Your task to perform on an android device: turn off notifications in google photos Image 0: 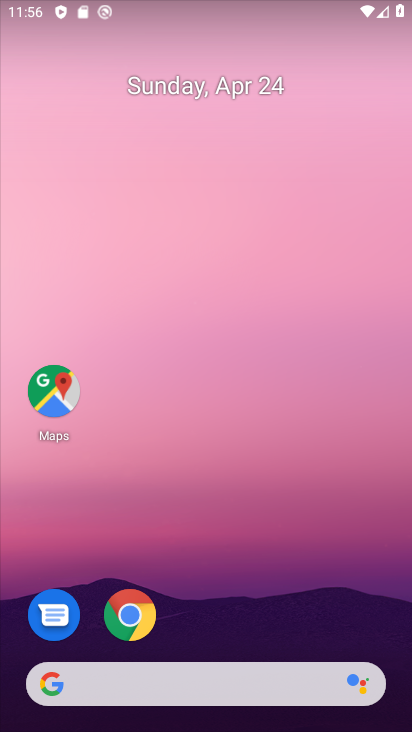
Step 0: drag from (368, 614) to (369, 126)
Your task to perform on an android device: turn off notifications in google photos Image 1: 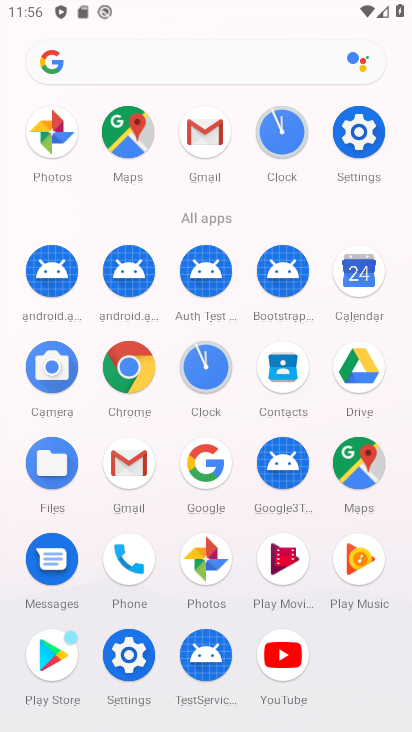
Step 1: click (205, 562)
Your task to perform on an android device: turn off notifications in google photos Image 2: 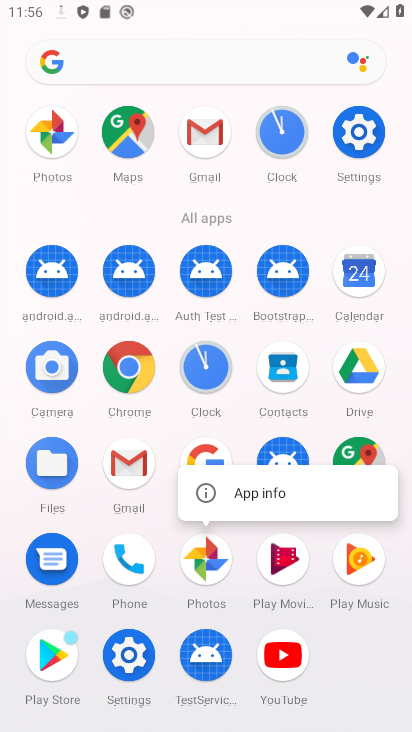
Step 2: click (210, 560)
Your task to perform on an android device: turn off notifications in google photos Image 3: 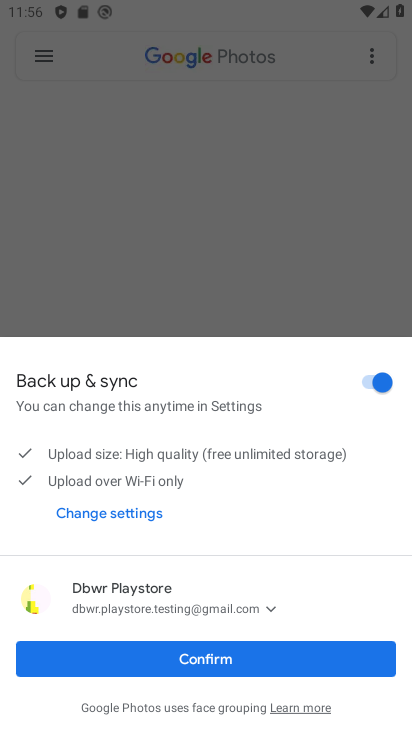
Step 3: click (304, 658)
Your task to perform on an android device: turn off notifications in google photos Image 4: 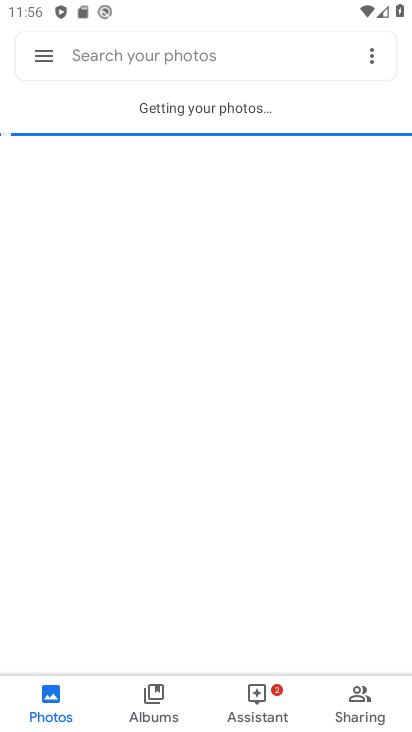
Step 4: click (43, 48)
Your task to perform on an android device: turn off notifications in google photos Image 5: 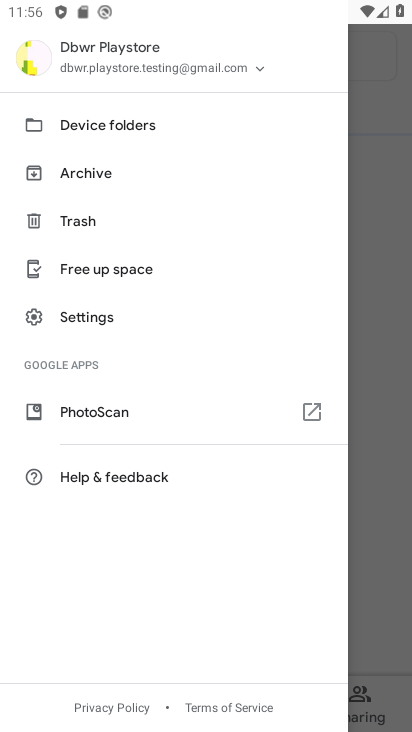
Step 5: click (107, 317)
Your task to perform on an android device: turn off notifications in google photos Image 6: 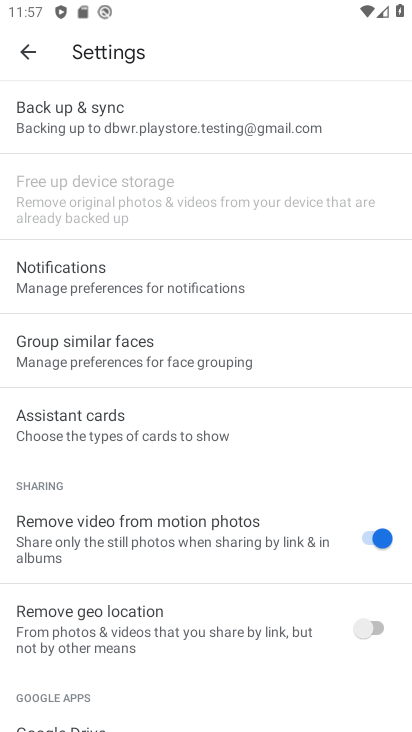
Step 6: click (212, 274)
Your task to perform on an android device: turn off notifications in google photos Image 7: 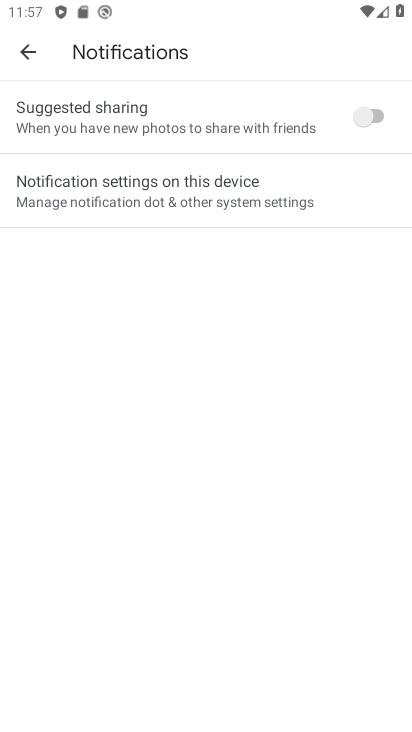
Step 7: click (220, 212)
Your task to perform on an android device: turn off notifications in google photos Image 8: 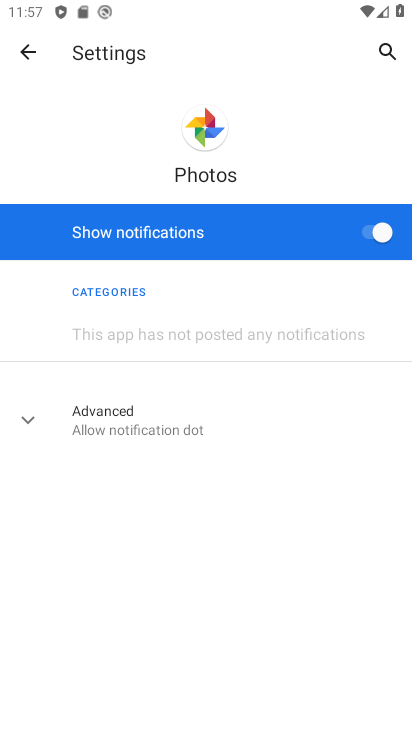
Step 8: click (386, 228)
Your task to perform on an android device: turn off notifications in google photos Image 9: 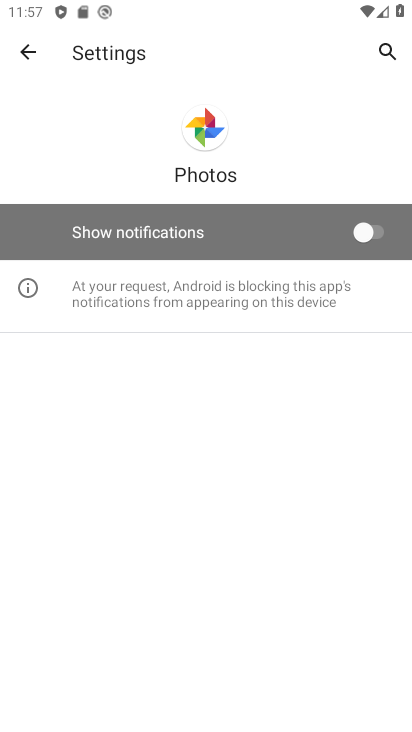
Step 9: task complete